Your task to perform on an android device: turn off data saver in the chrome app Image 0: 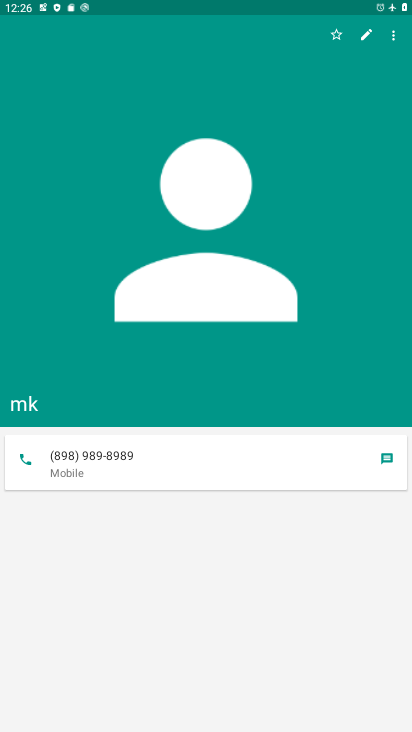
Step 0: press home button
Your task to perform on an android device: turn off data saver in the chrome app Image 1: 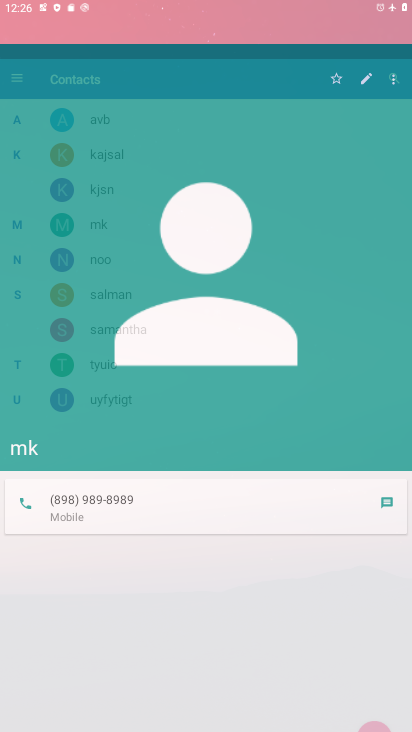
Step 1: drag from (171, 640) to (162, 118)
Your task to perform on an android device: turn off data saver in the chrome app Image 2: 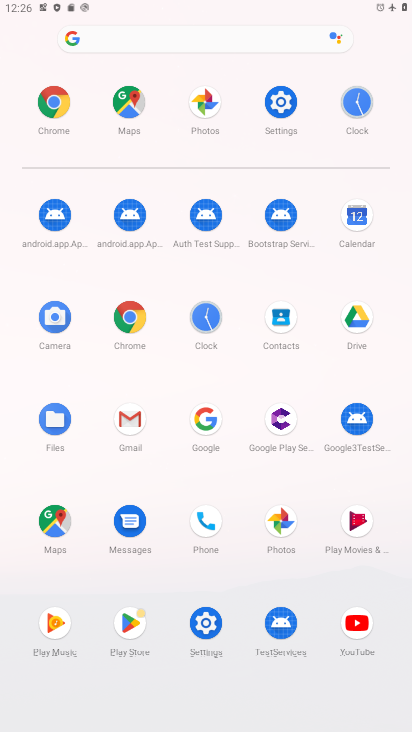
Step 2: click (124, 317)
Your task to perform on an android device: turn off data saver in the chrome app Image 3: 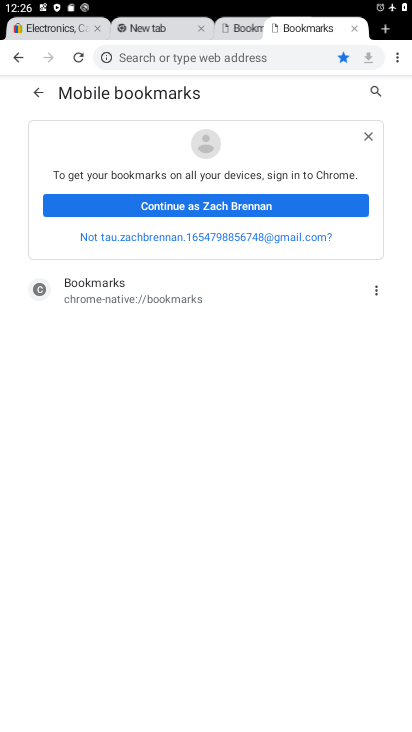
Step 3: click (396, 58)
Your task to perform on an android device: turn off data saver in the chrome app Image 4: 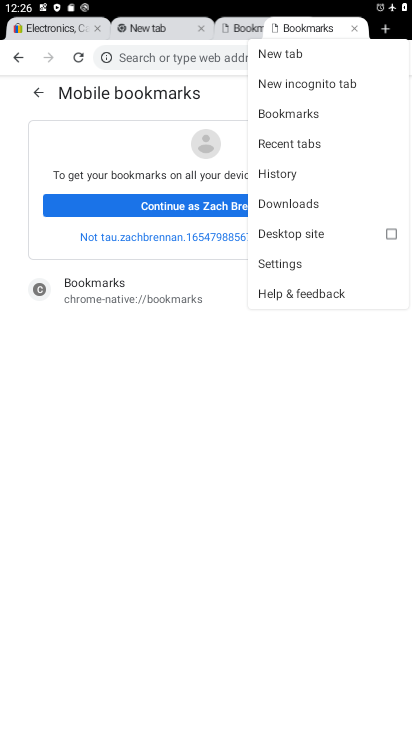
Step 4: click (270, 254)
Your task to perform on an android device: turn off data saver in the chrome app Image 5: 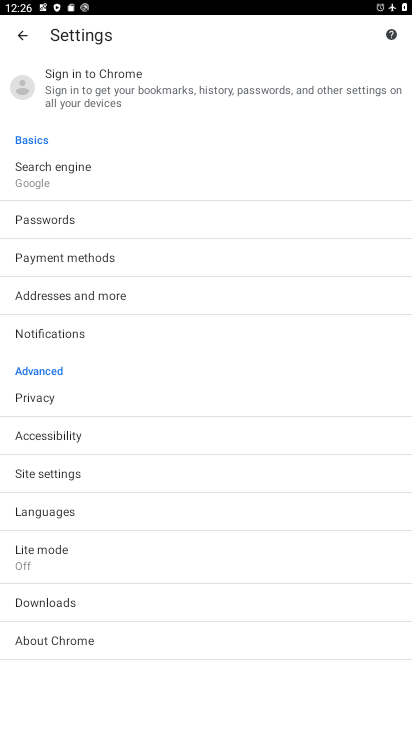
Step 5: drag from (174, 586) to (195, 250)
Your task to perform on an android device: turn off data saver in the chrome app Image 6: 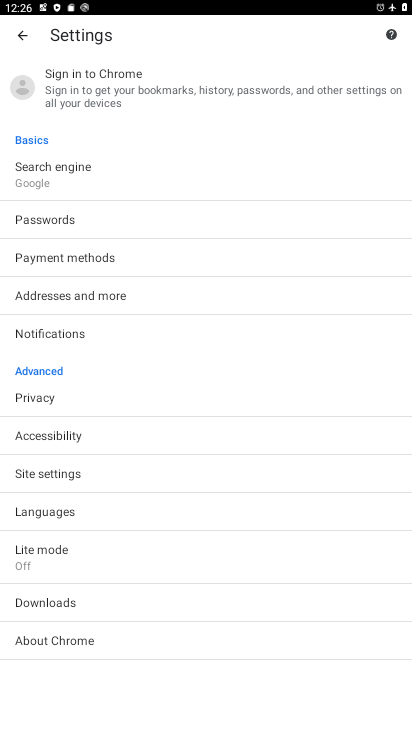
Step 6: click (101, 561)
Your task to perform on an android device: turn off data saver in the chrome app Image 7: 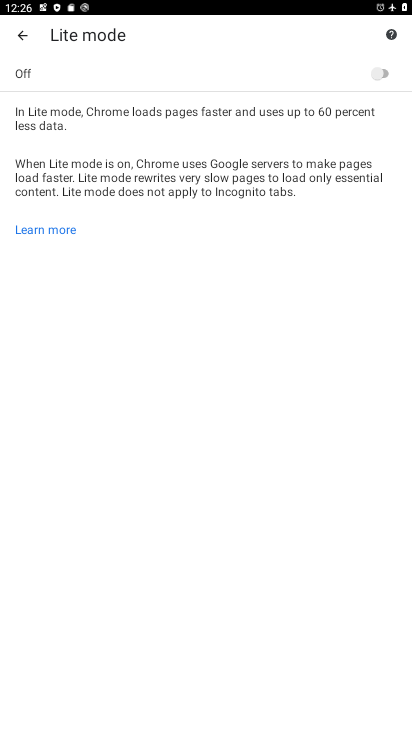
Step 7: task complete